Your task to perform on an android device: Find coffee shops on Maps Image 0: 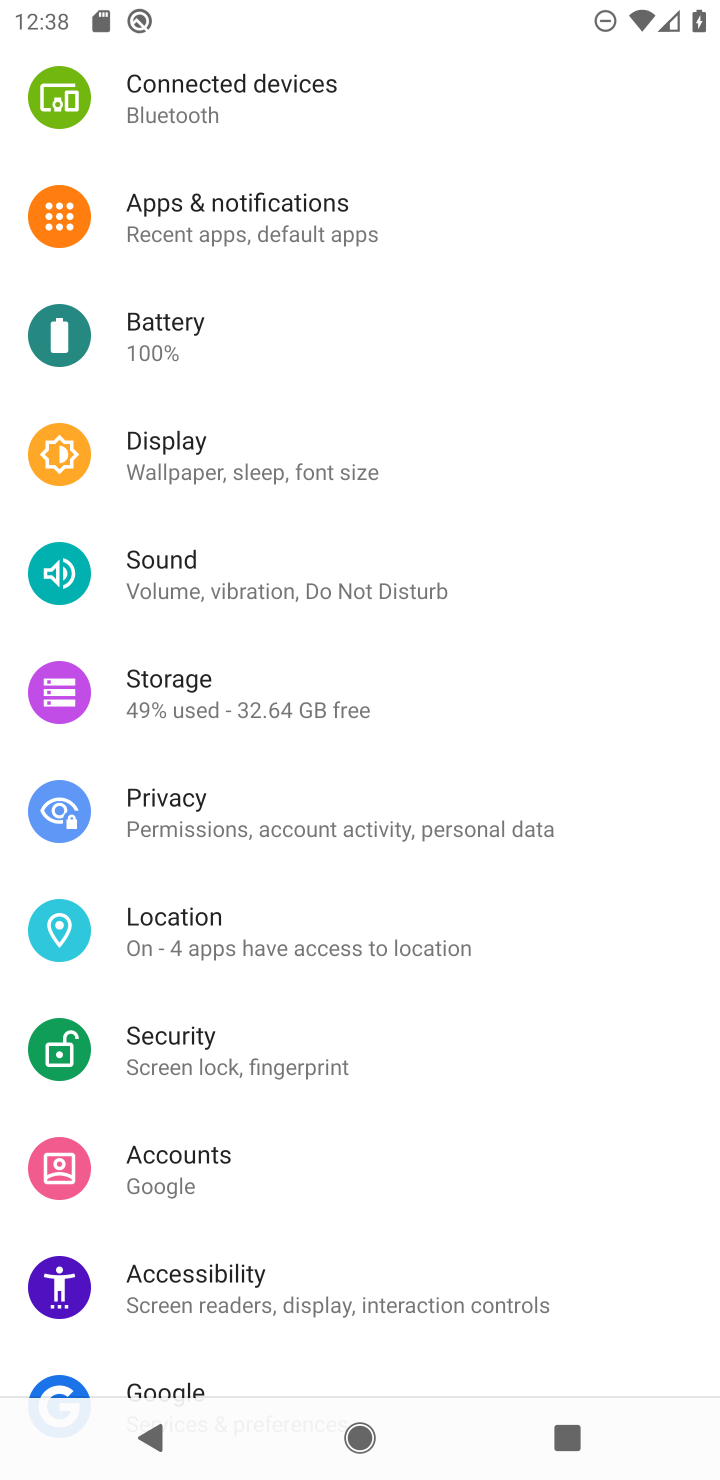
Step 0: press home button
Your task to perform on an android device: Find coffee shops on Maps Image 1: 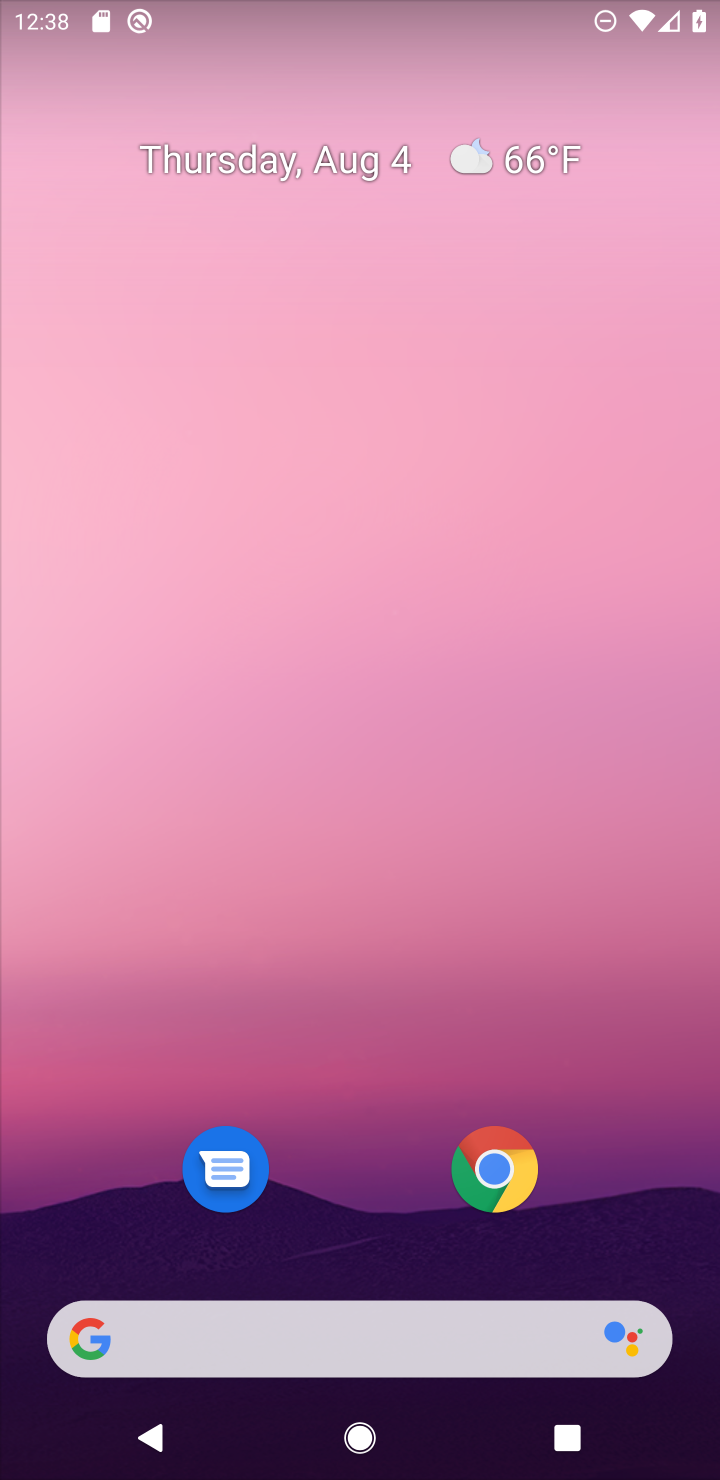
Step 1: drag from (380, 1130) to (406, 24)
Your task to perform on an android device: Find coffee shops on Maps Image 2: 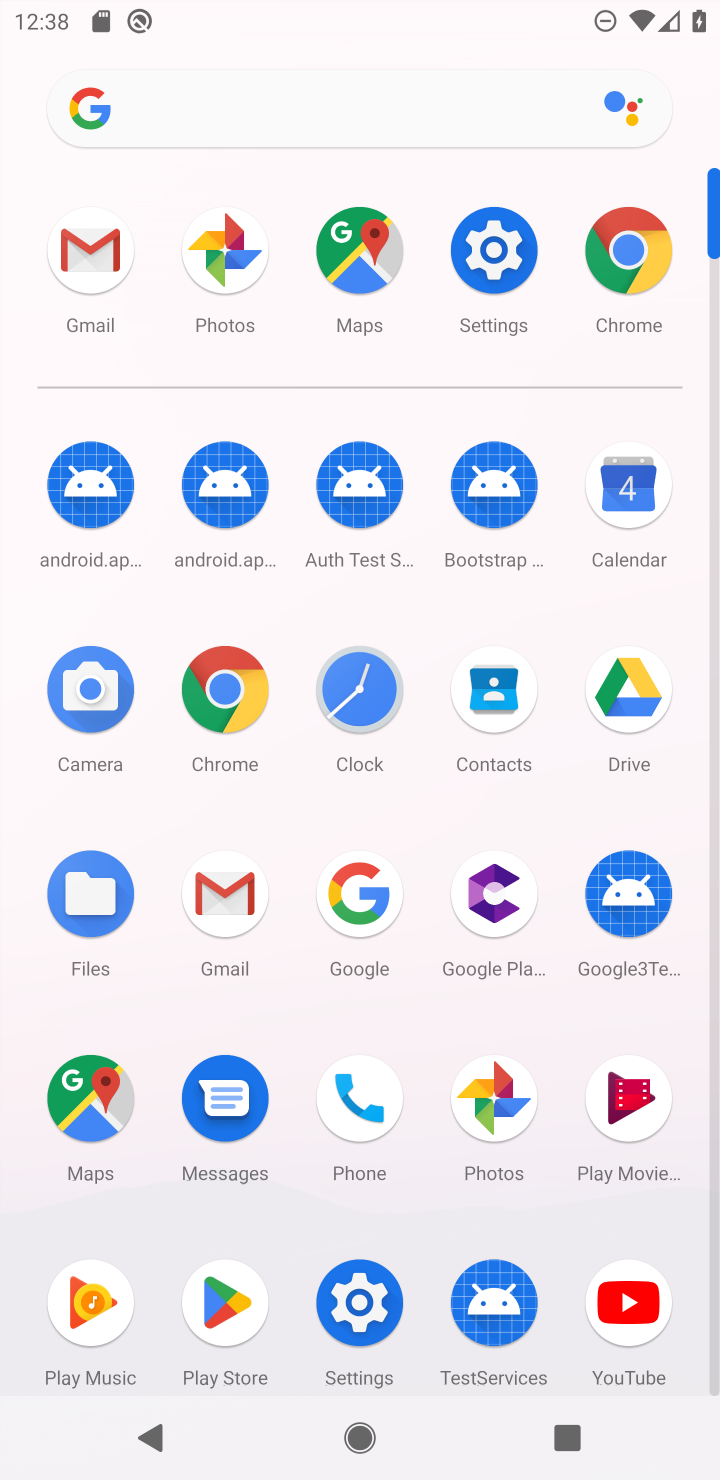
Step 2: click (353, 251)
Your task to perform on an android device: Find coffee shops on Maps Image 3: 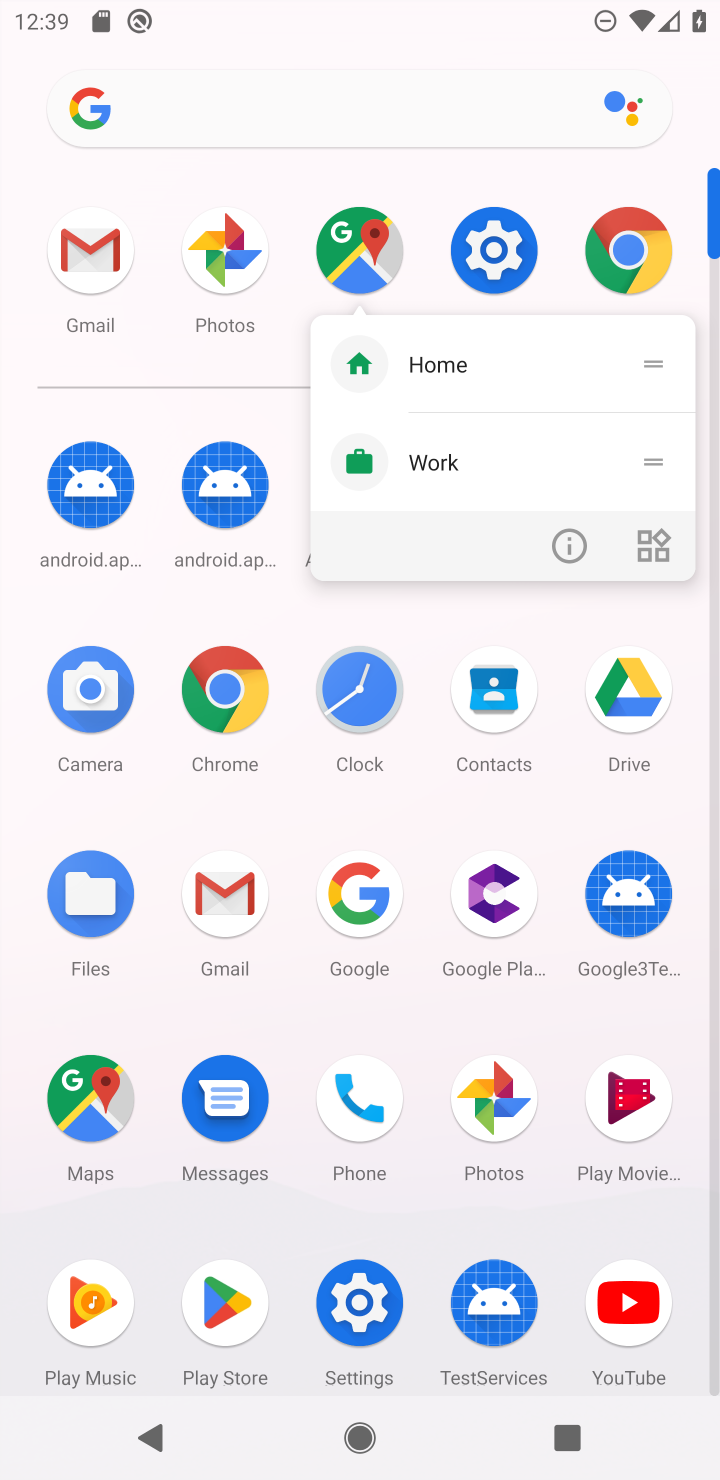
Step 3: click (353, 254)
Your task to perform on an android device: Find coffee shops on Maps Image 4: 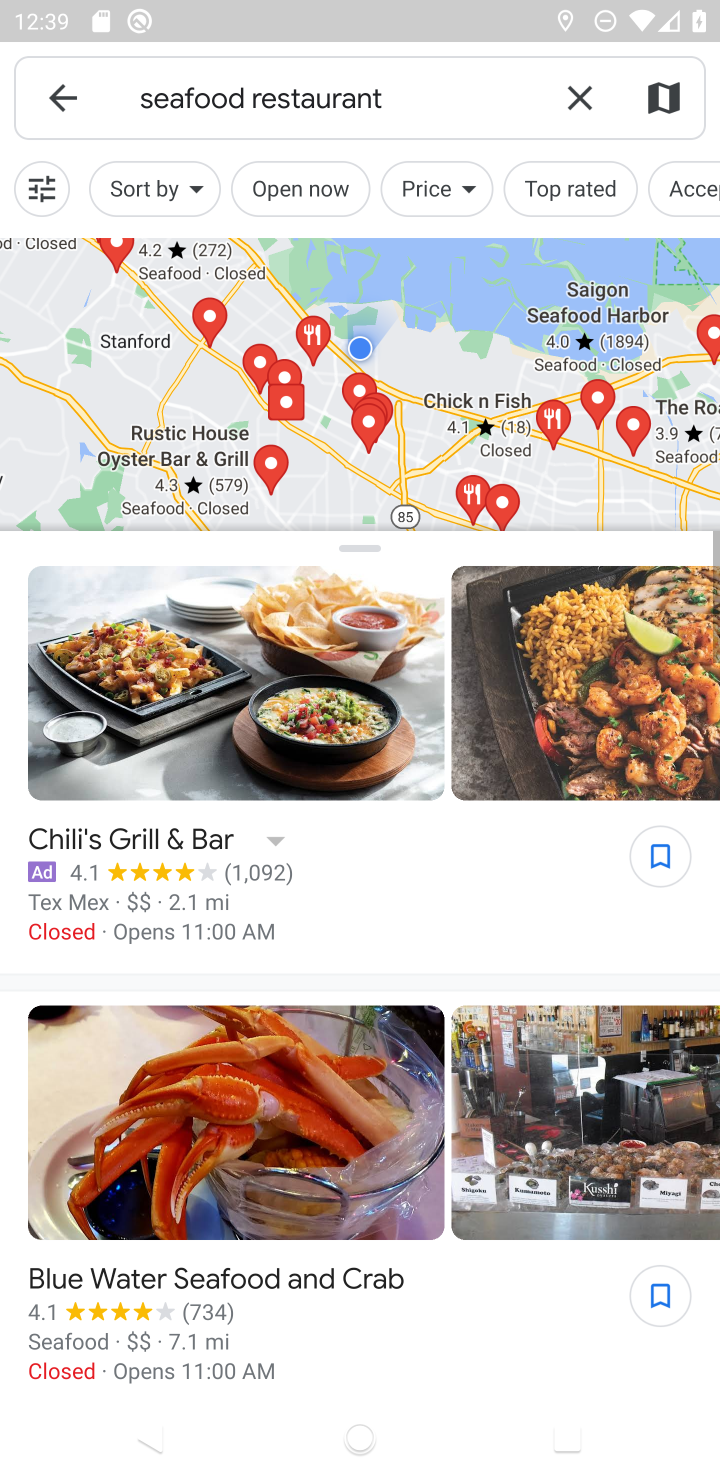
Step 4: click (574, 109)
Your task to perform on an android device: Find coffee shops on Maps Image 5: 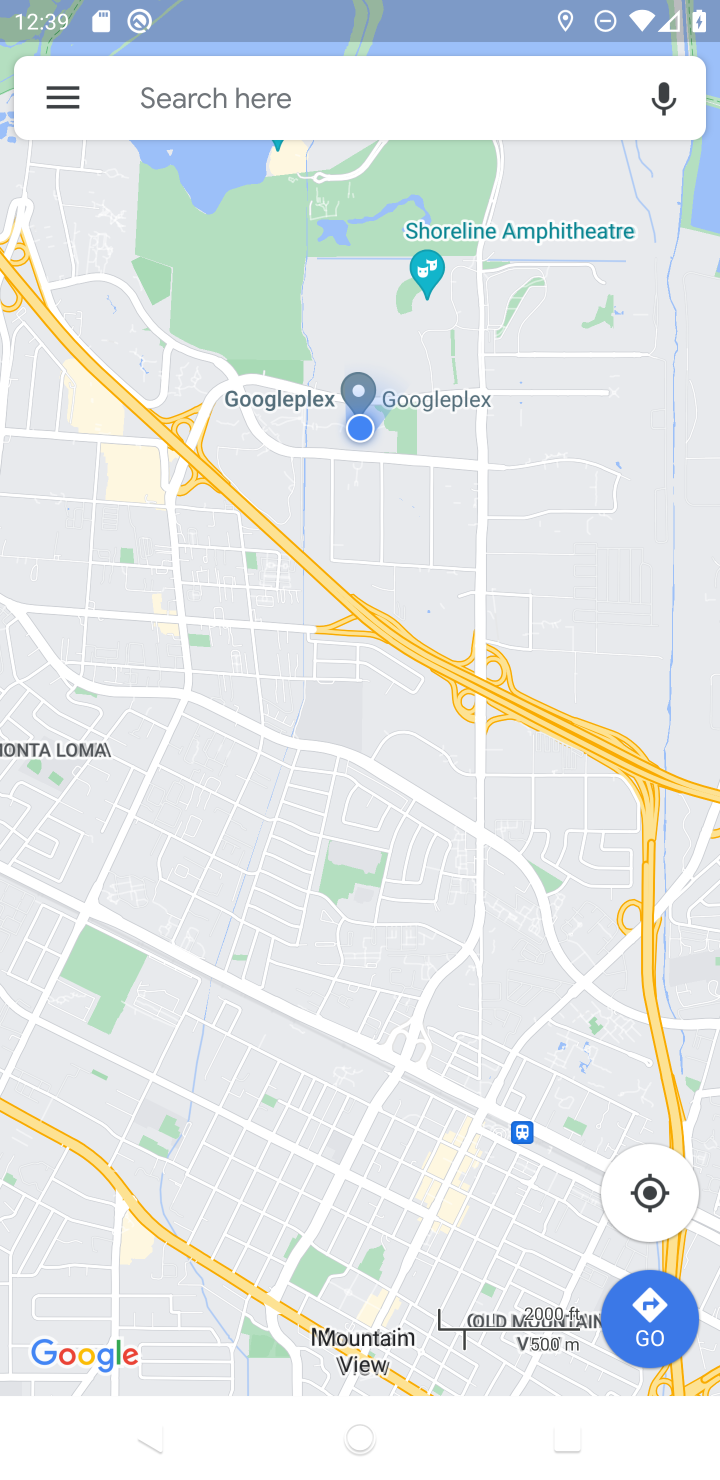
Step 5: click (377, 100)
Your task to perform on an android device: Find coffee shops on Maps Image 6: 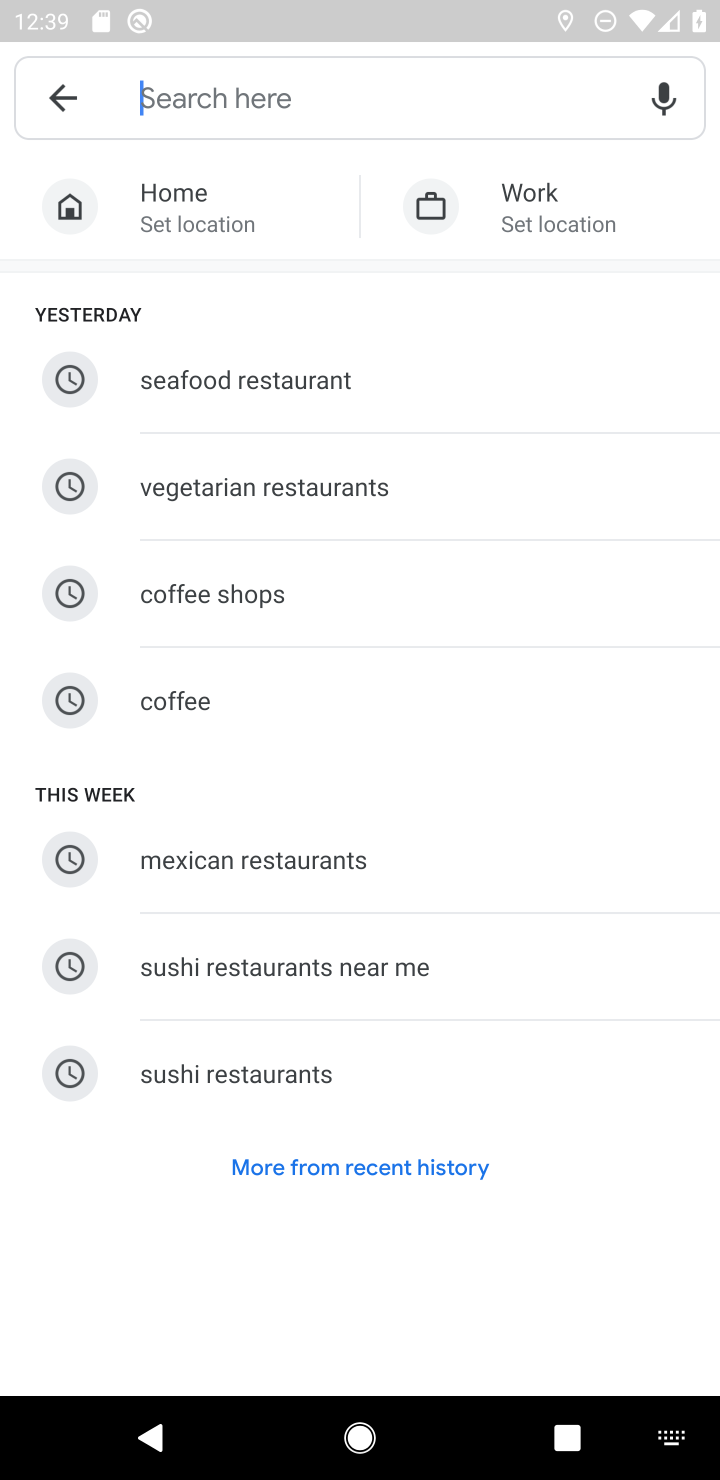
Step 6: type "coffee shops"
Your task to perform on an android device: Find coffee shops on Maps Image 7: 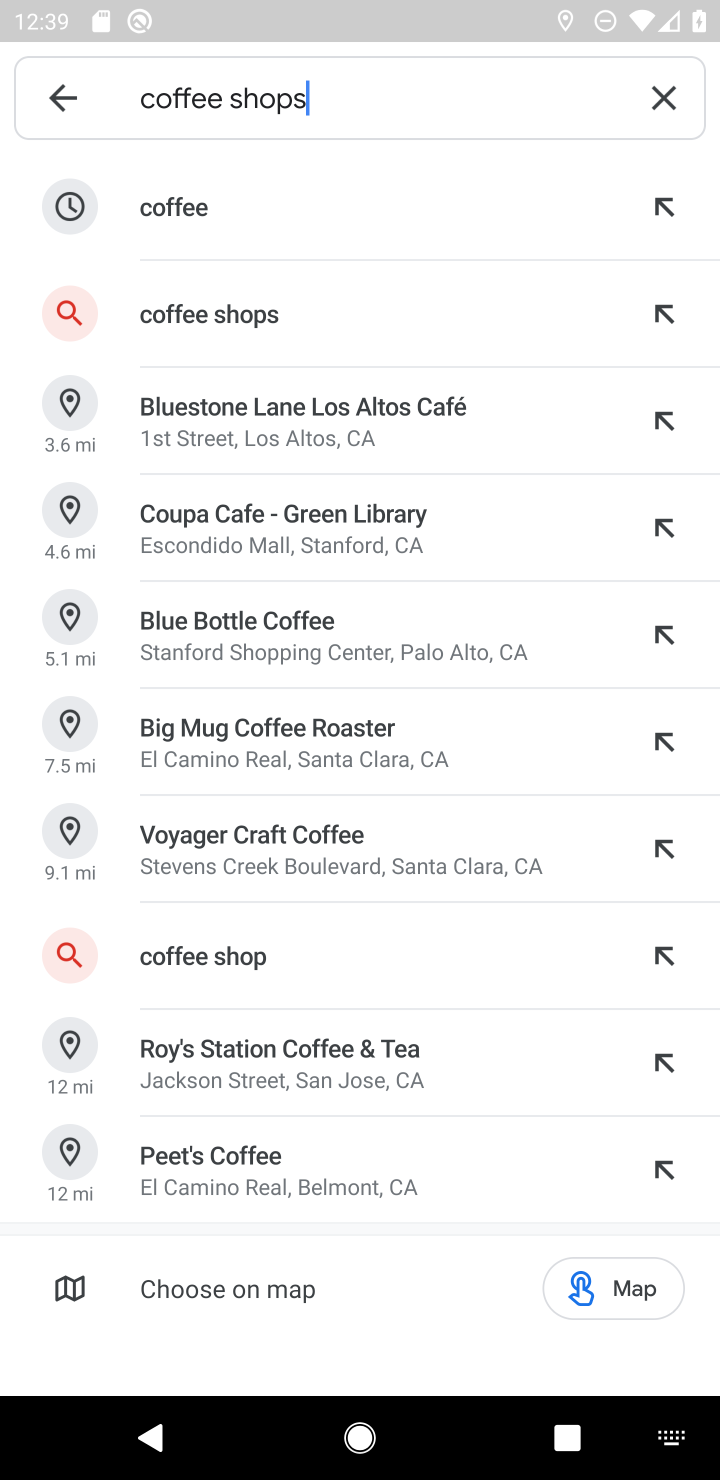
Step 7: click (270, 330)
Your task to perform on an android device: Find coffee shops on Maps Image 8: 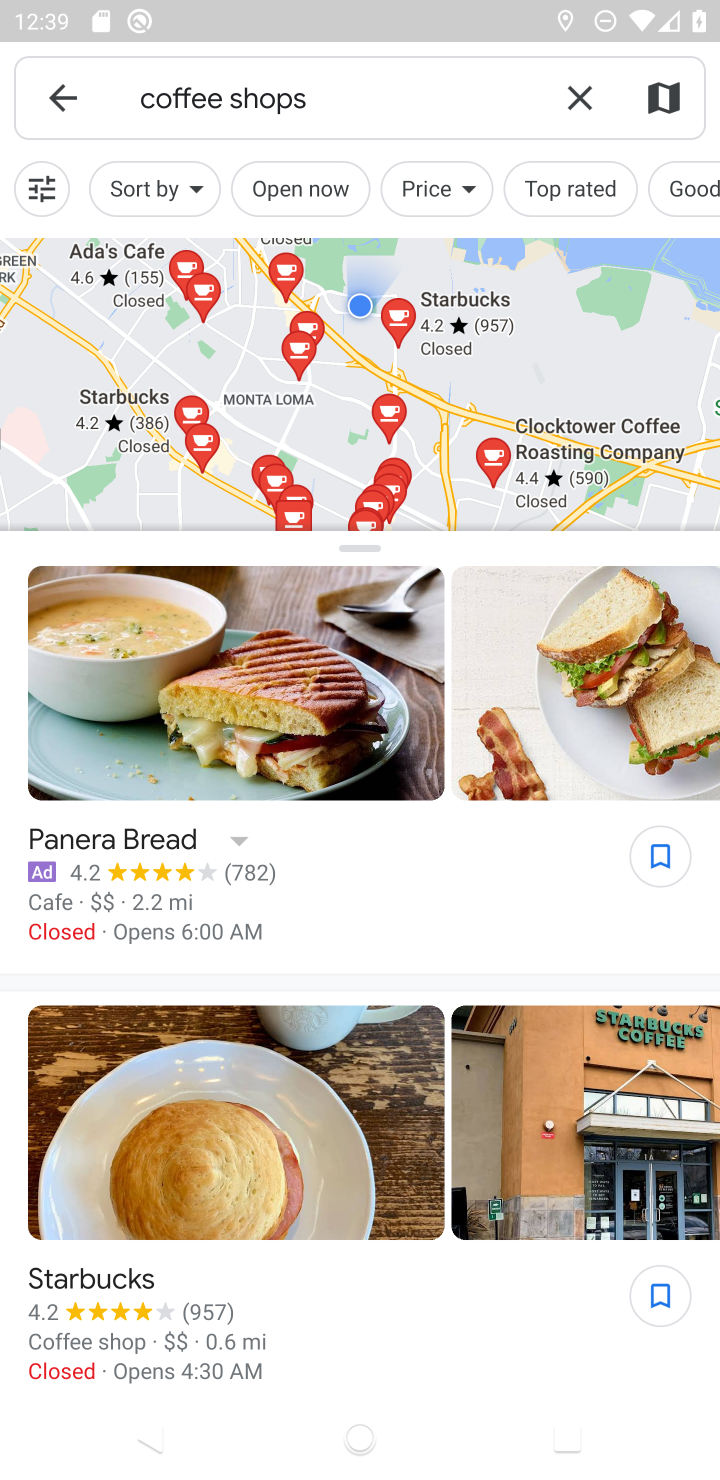
Step 8: task complete